Your task to perform on an android device: Go to display settings Image 0: 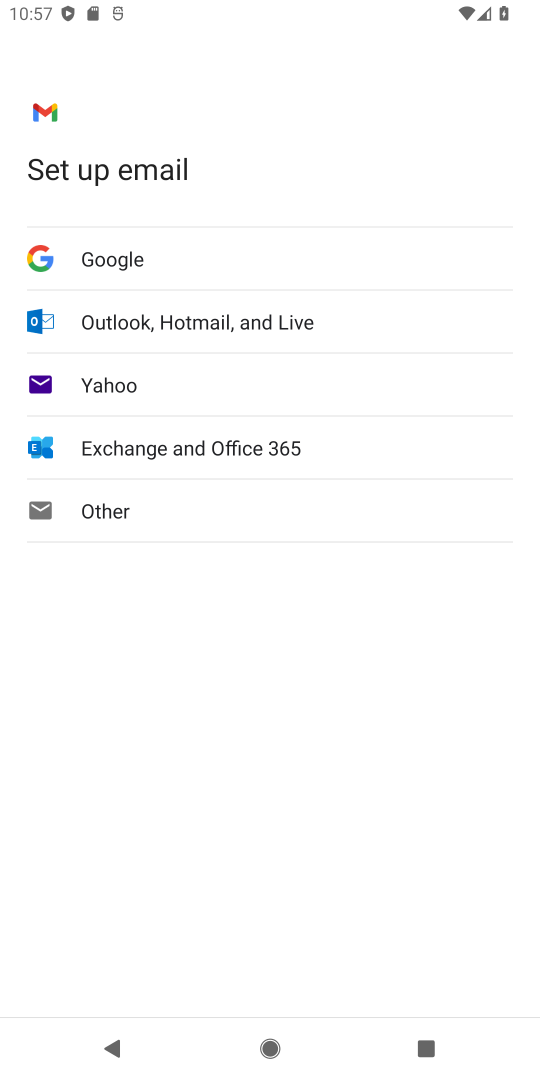
Step 0: press home button
Your task to perform on an android device: Go to display settings Image 1: 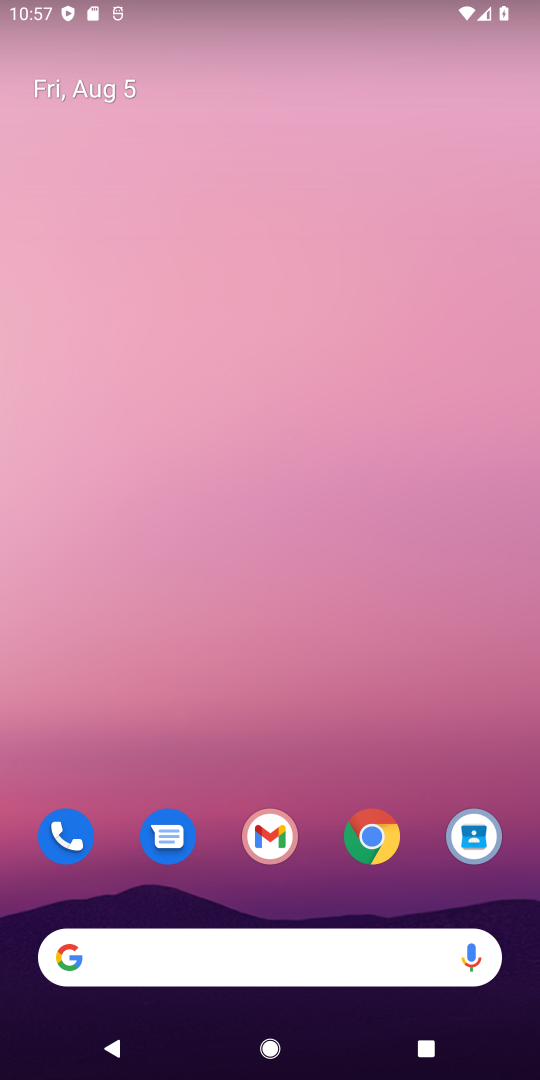
Step 1: drag from (386, 766) to (408, 134)
Your task to perform on an android device: Go to display settings Image 2: 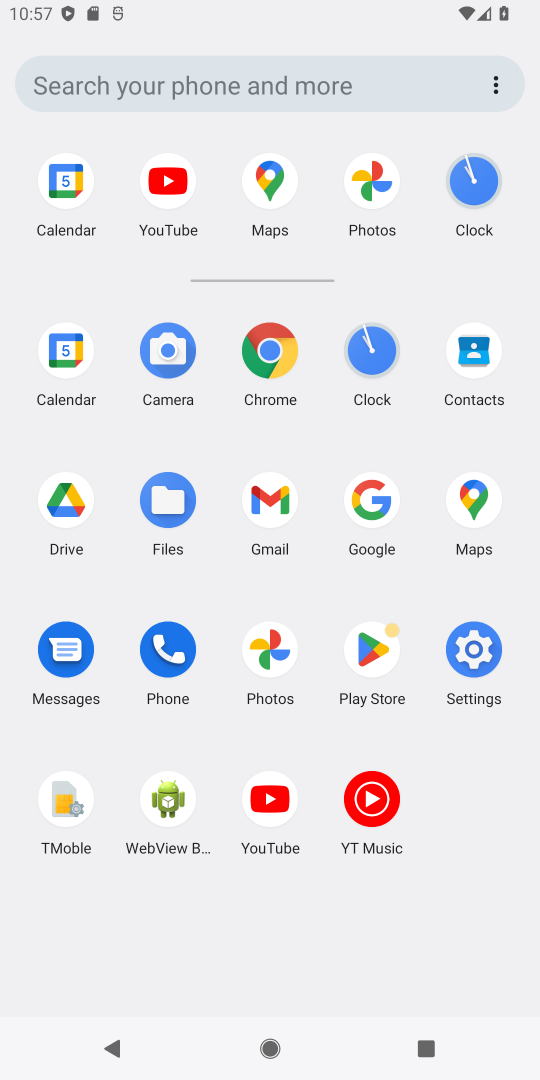
Step 2: click (475, 635)
Your task to perform on an android device: Go to display settings Image 3: 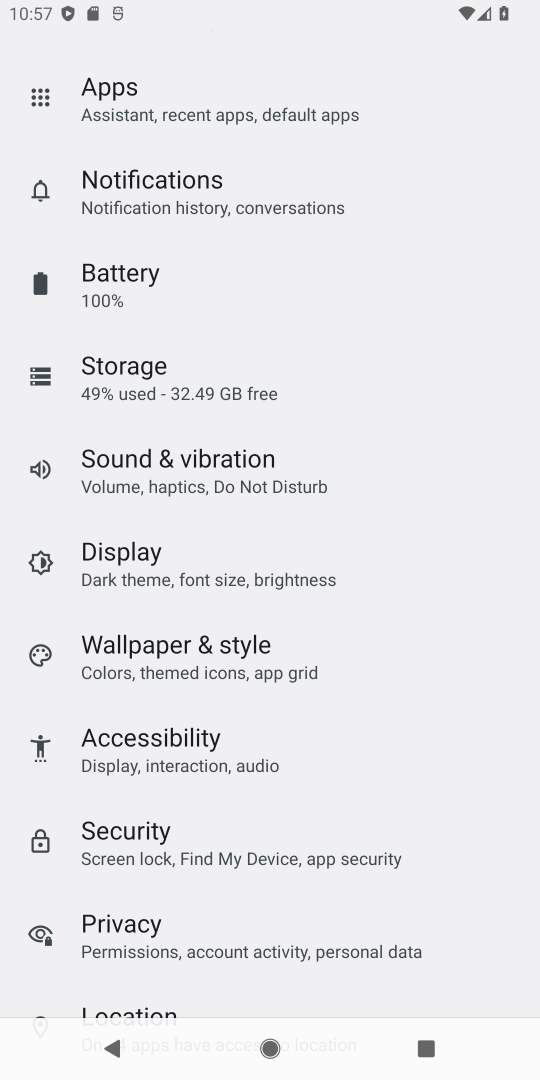
Step 3: click (218, 564)
Your task to perform on an android device: Go to display settings Image 4: 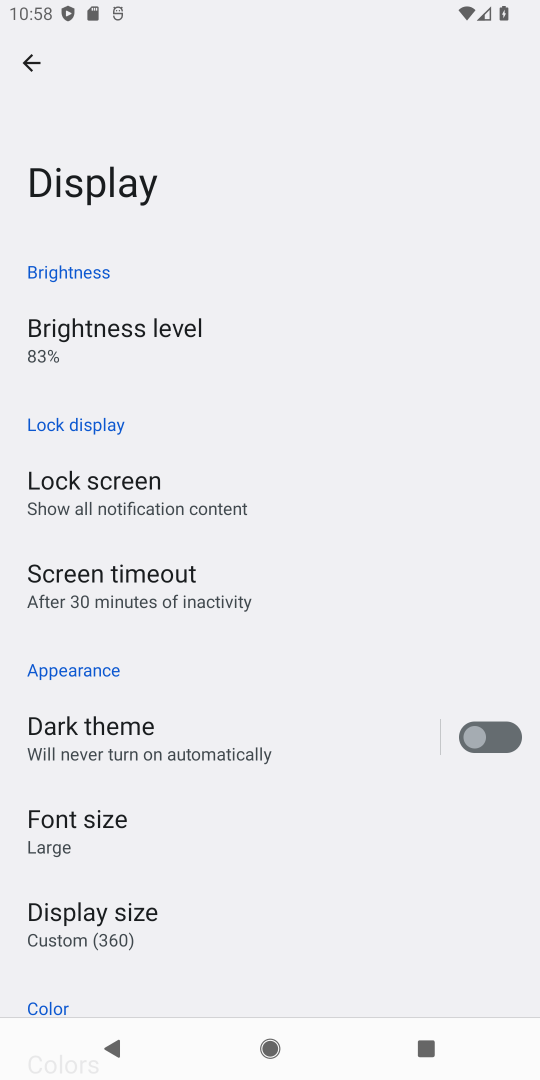
Step 4: task complete